Your task to perform on an android device: Open privacy settings Image 0: 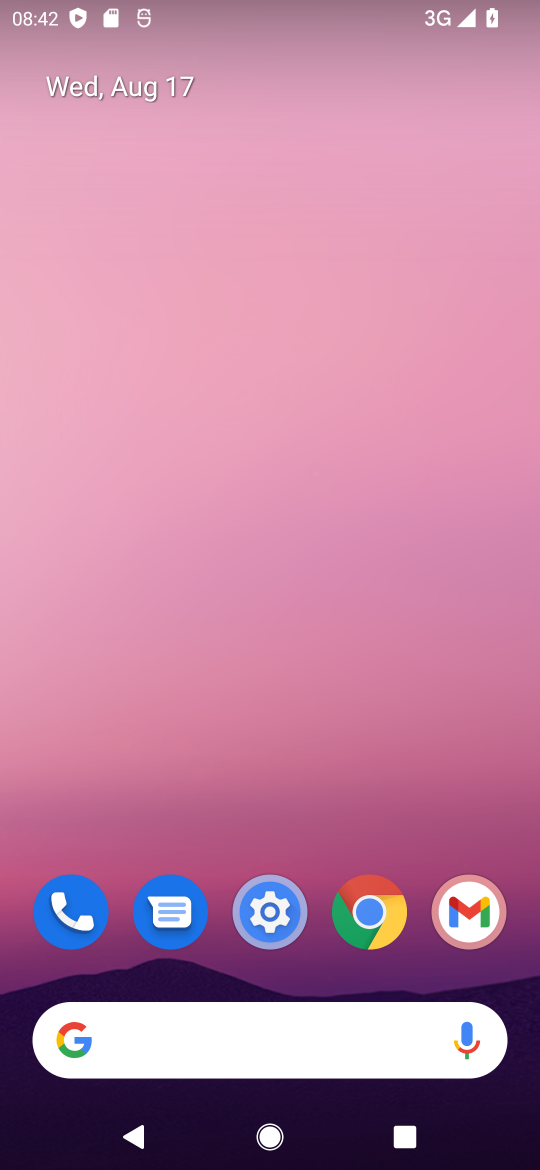
Step 0: drag from (345, 976) to (304, 284)
Your task to perform on an android device: Open privacy settings Image 1: 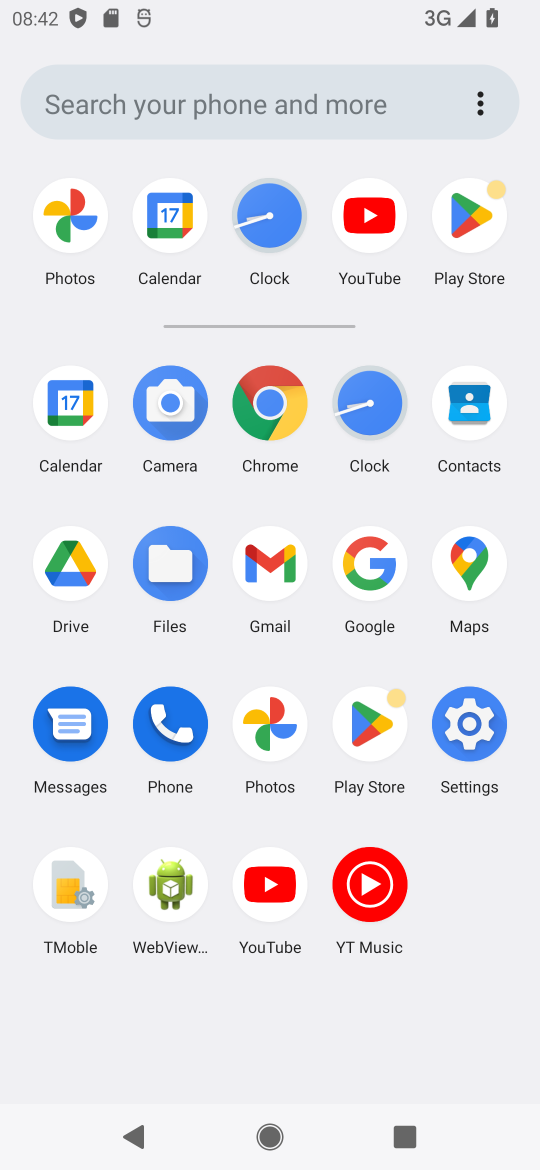
Step 1: click (464, 728)
Your task to perform on an android device: Open privacy settings Image 2: 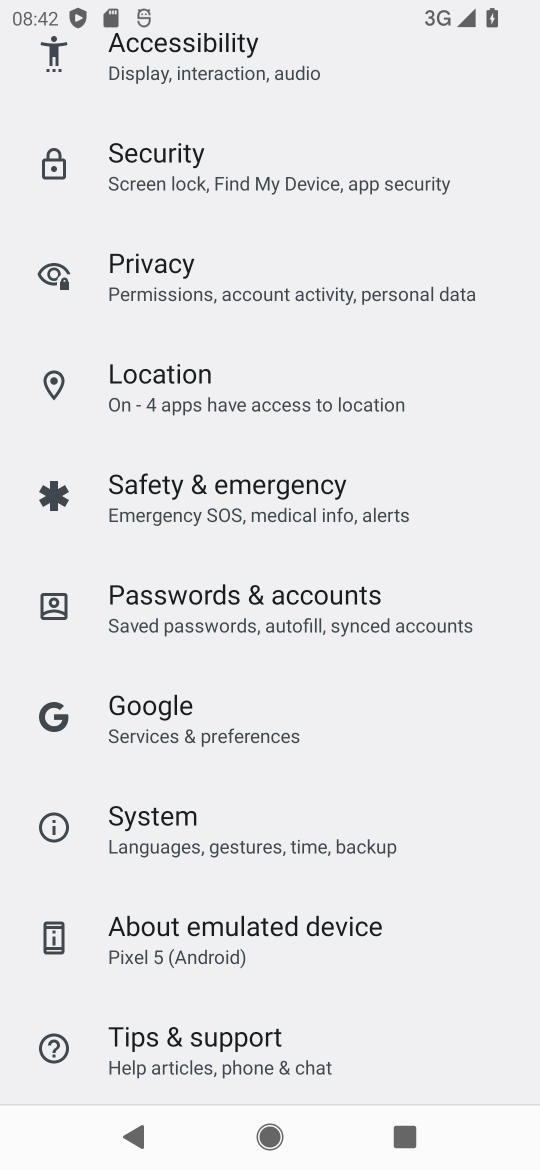
Step 2: click (172, 263)
Your task to perform on an android device: Open privacy settings Image 3: 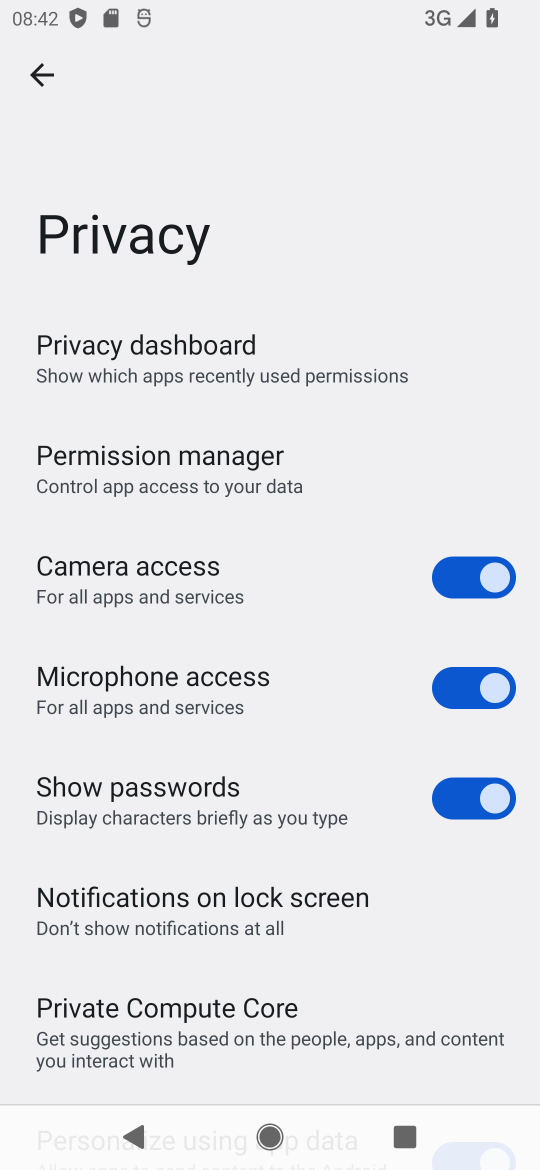
Step 3: task complete